Your task to perform on an android device: clear all cookies in the chrome app Image 0: 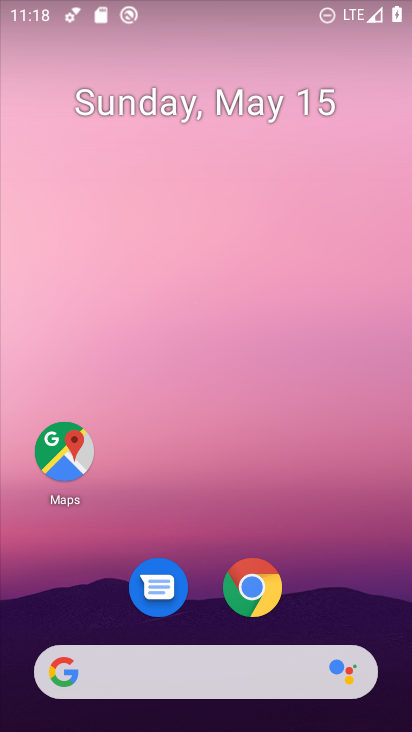
Step 0: click (239, 616)
Your task to perform on an android device: clear all cookies in the chrome app Image 1: 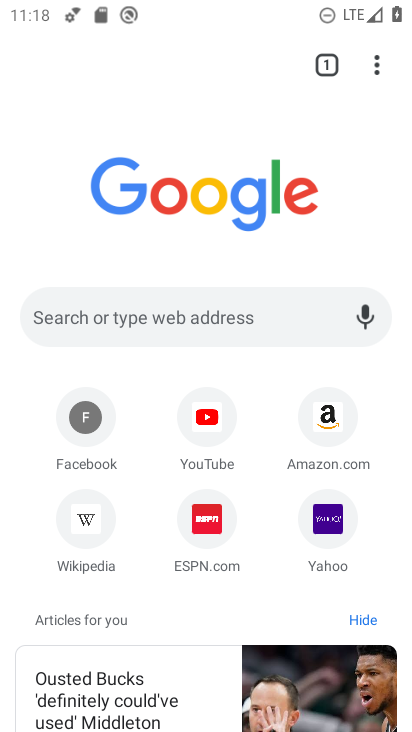
Step 1: task complete